Your task to perform on an android device: add a contact in the contacts app Image 0: 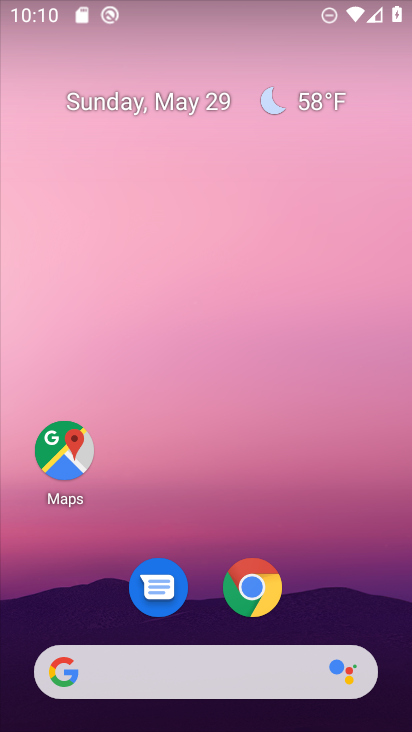
Step 0: drag from (332, 600) to (269, 198)
Your task to perform on an android device: add a contact in the contacts app Image 1: 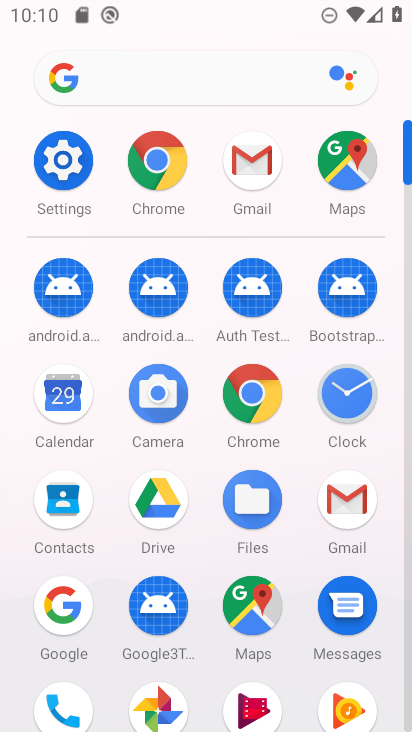
Step 1: click (59, 509)
Your task to perform on an android device: add a contact in the contacts app Image 2: 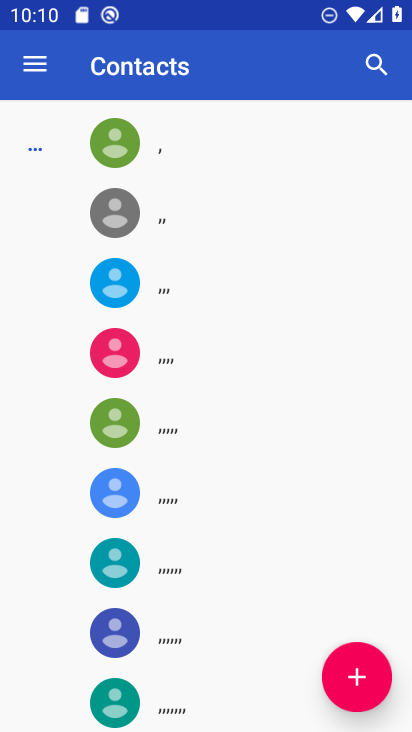
Step 2: click (371, 673)
Your task to perform on an android device: add a contact in the contacts app Image 3: 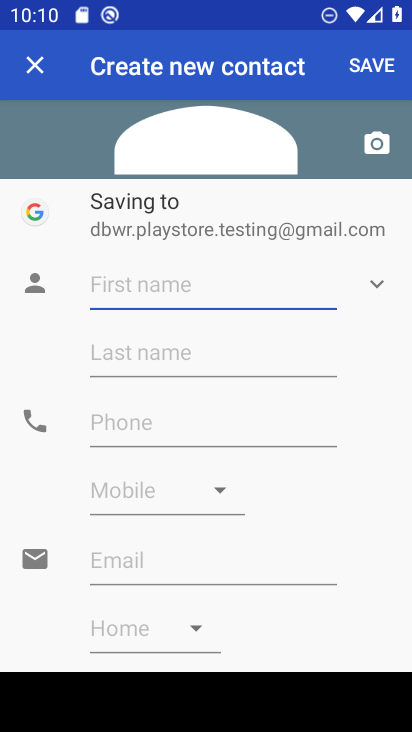
Step 3: type "vjvjggvj"
Your task to perform on an android device: add a contact in the contacts app Image 4: 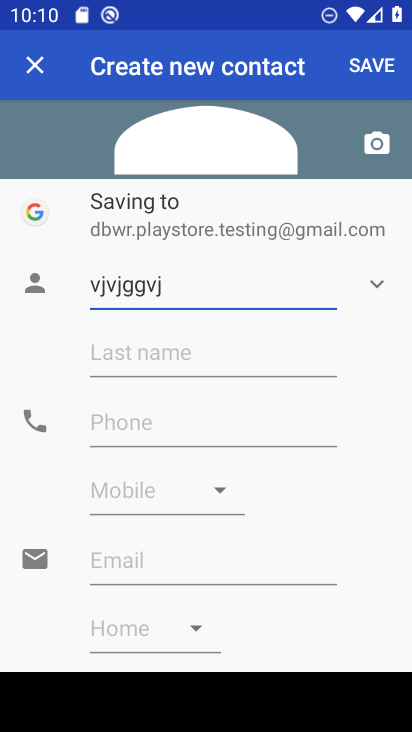
Step 4: click (254, 429)
Your task to perform on an android device: add a contact in the contacts app Image 5: 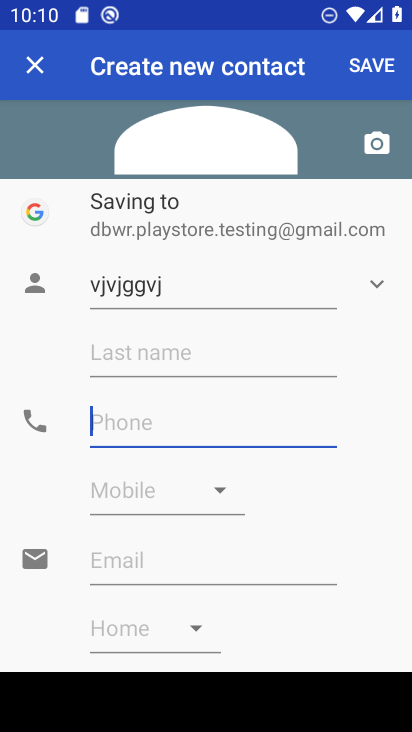
Step 5: type "769769769"
Your task to perform on an android device: add a contact in the contacts app Image 6: 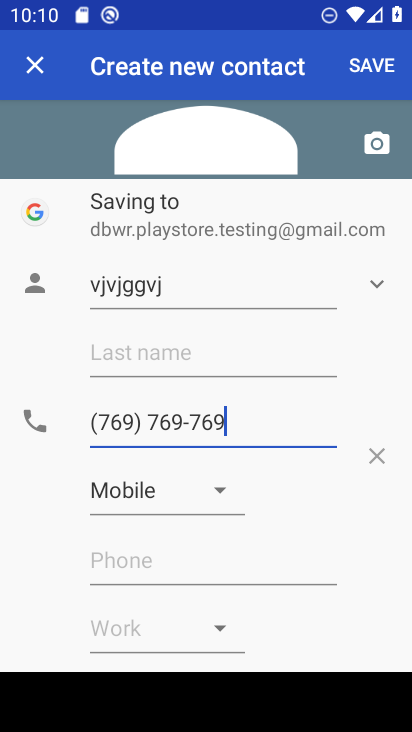
Step 6: click (377, 67)
Your task to perform on an android device: add a contact in the contacts app Image 7: 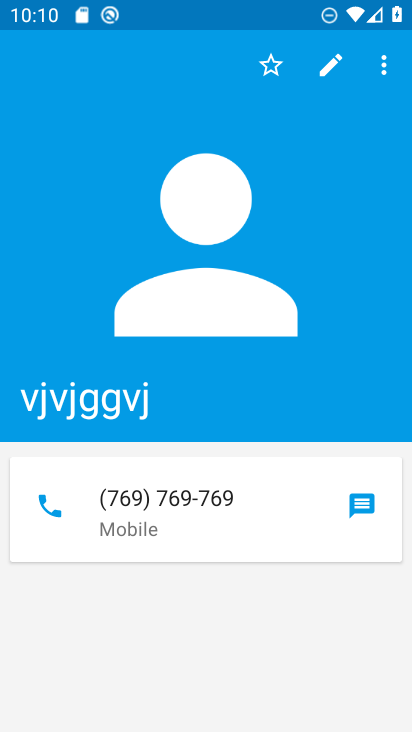
Step 7: task complete